Your task to perform on an android device: all mails in gmail Image 0: 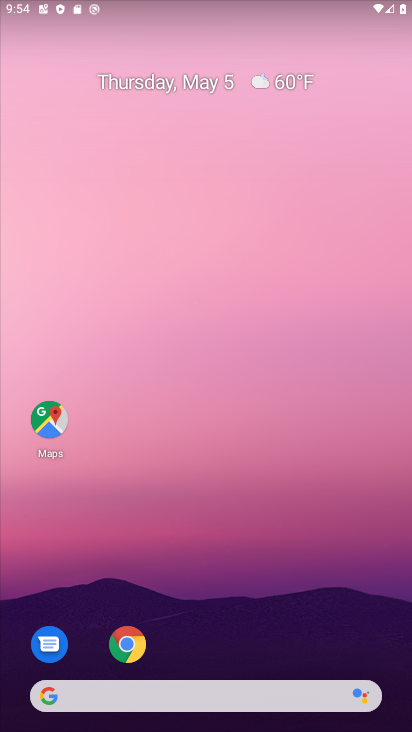
Step 0: drag from (274, 556) to (294, 61)
Your task to perform on an android device: all mails in gmail Image 1: 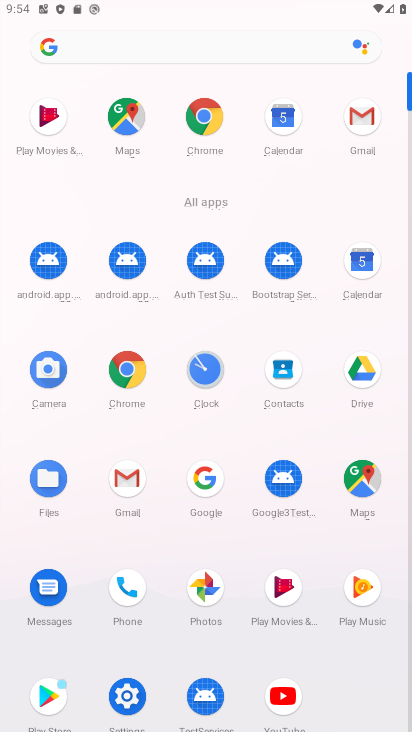
Step 1: click (353, 122)
Your task to perform on an android device: all mails in gmail Image 2: 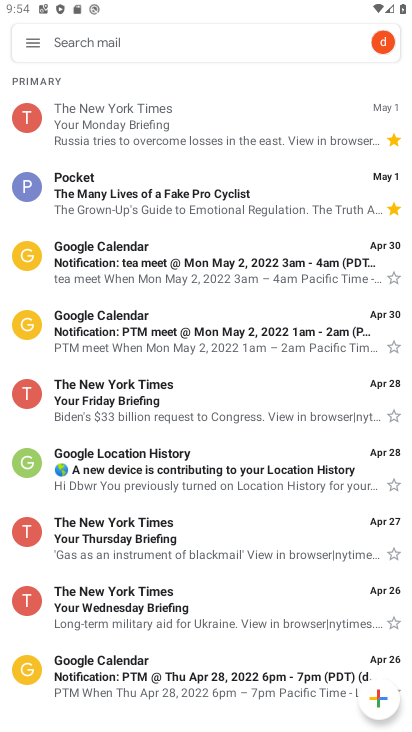
Step 2: click (29, 45)
Your task to perform on an android device: all mails in gmail Image 3: 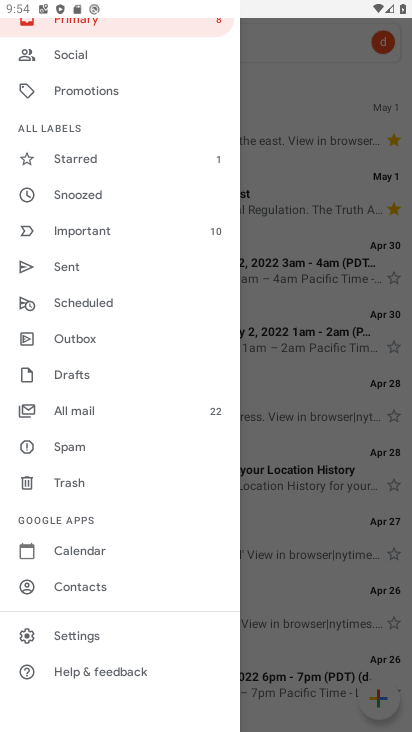
Step 3: click (89, 410)
Your task to perform on an android device: all mails in gmail Image 4: 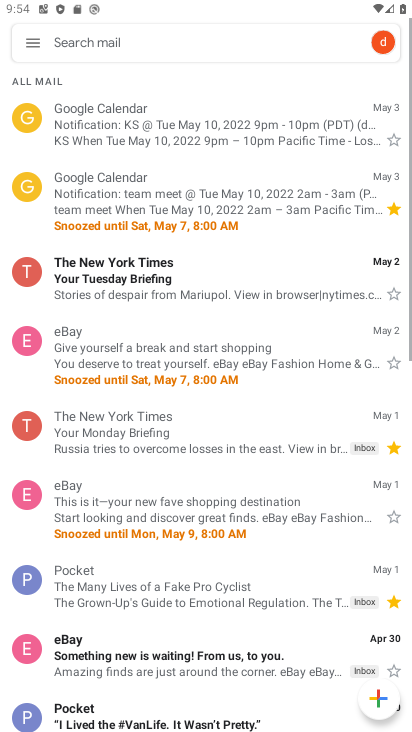
Step 4: task complete